Your task to perform on an android device: Toggle the flashlight Image 0: 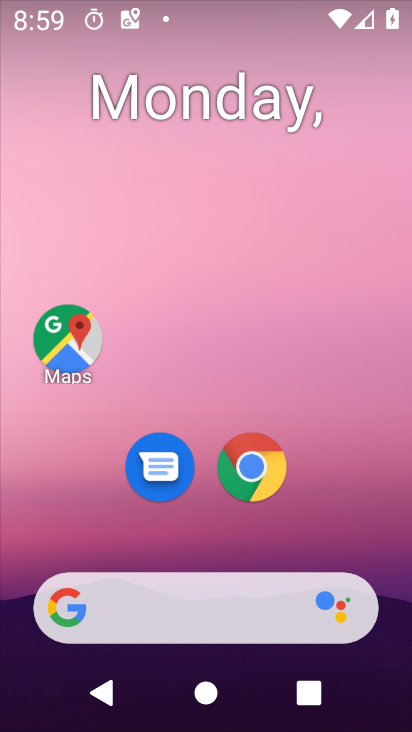
Step 0: drag from (234, 353) to (309, 23)
Your task to perform on an android device: Toggle the flashlight Image 1: 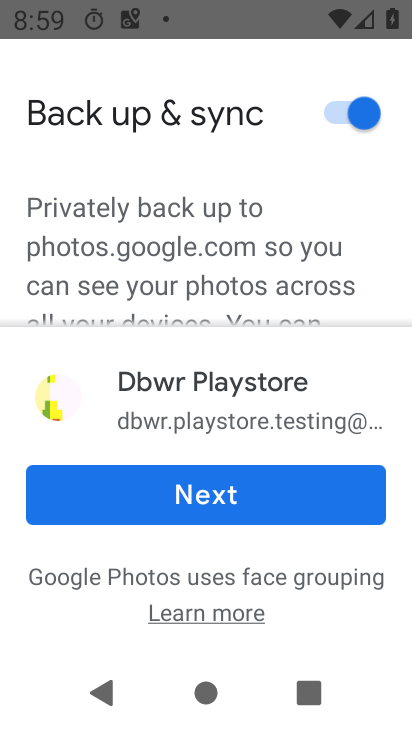
Step 1: press home button
Your task to perform on an android device: Toggle the flashlight Image 2: 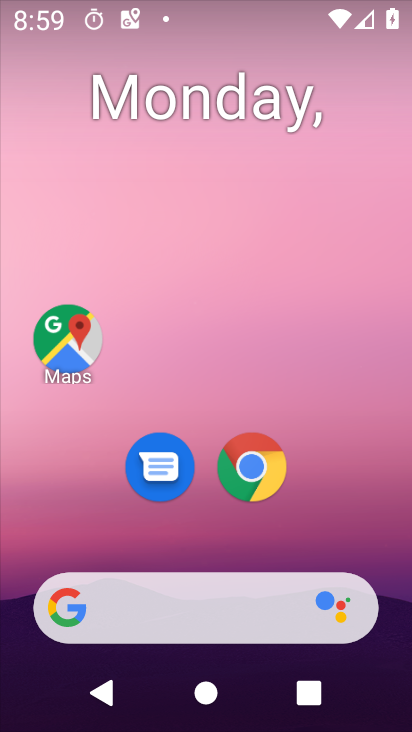
Step 2: drag from (191, 554) to (241, 160)
Your task to perform on an android device: Toggle the flashlight Image 3: 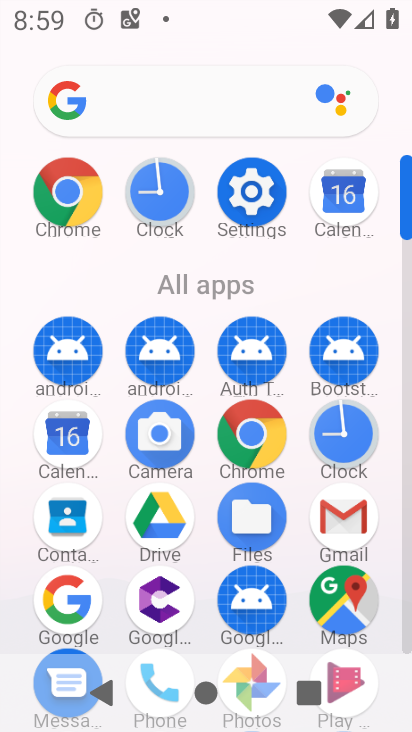
Step 3: click (240, 189)
Your task to perform on an android device: Toggle the flashlight Image 4: 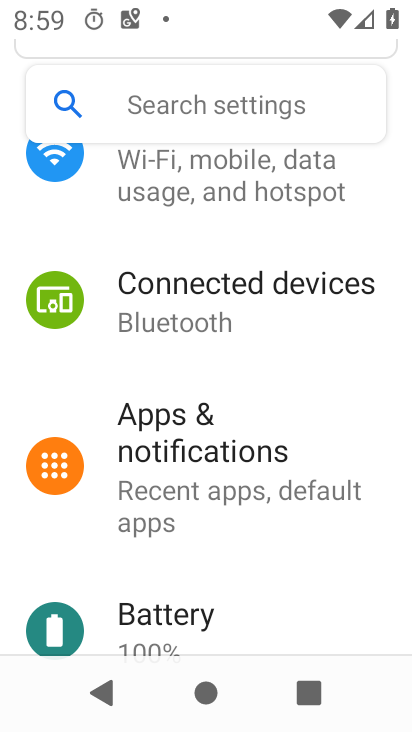
Step 4: task complete